Your task to perform on an android device: Turn on the flashlight Image 0: 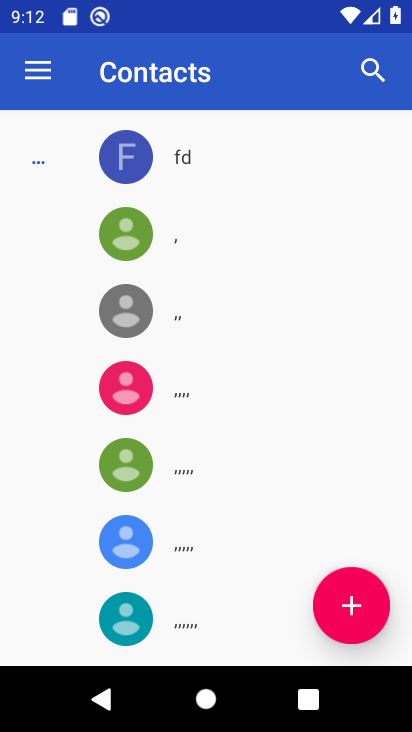
Step 0: press home button
Your task to perform on an android device: Turn on the flashlight Image 1: 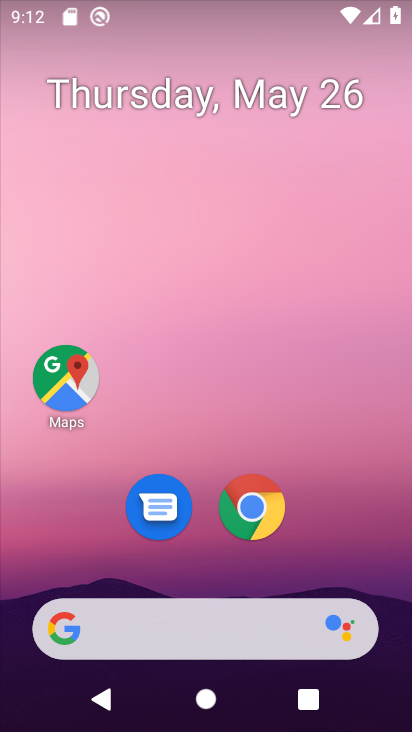
Step 1: drag from (286, 6) to (292, 398)
Your task to perform on an android device: Turn on the flashlight Image 2: 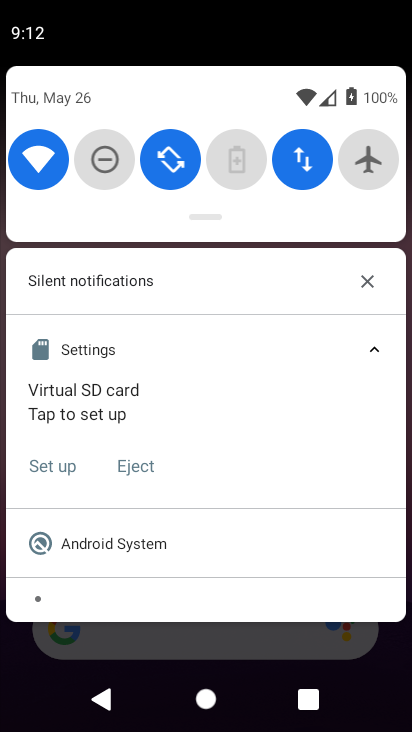
Step 2: drag from (191, 86) to (217, 412)
Your task to perform on an android device: Turn on the flashlight Image 3: 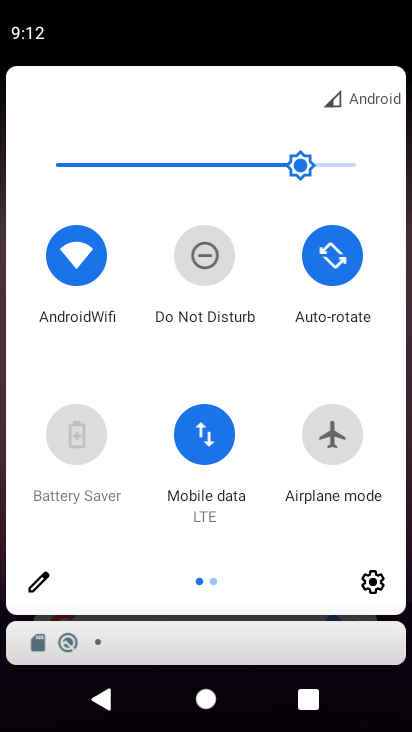
Step 3: click (36, 596)
Your task to perform on an android device: Turn on the flashlight Image 4: 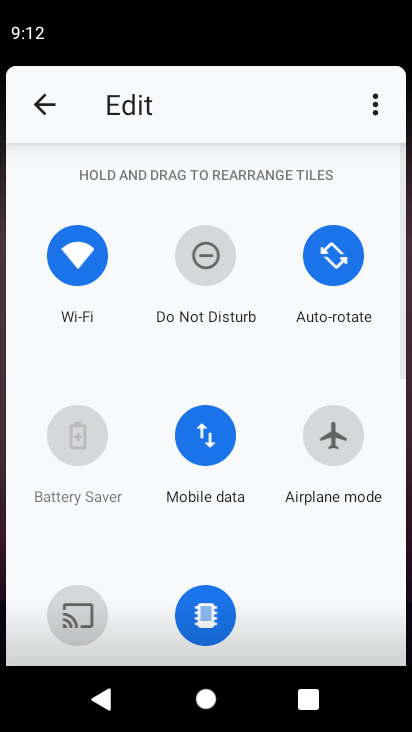
Step 4: task complete